Your task to perform on an android device: Open settings Image 0: 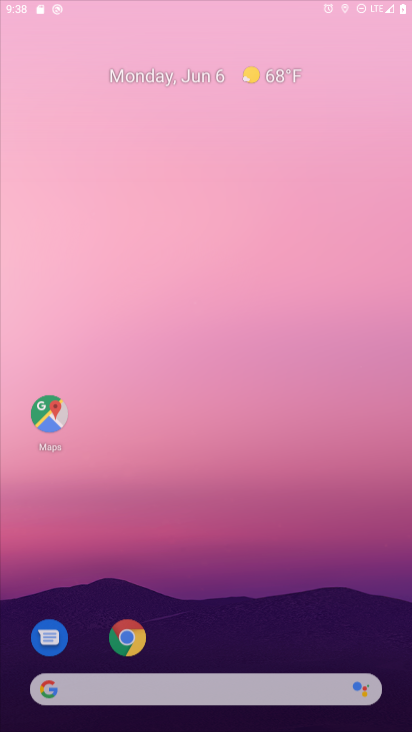
Step 0: press home button
Your task to perform on an android device: Open settings Image 1: 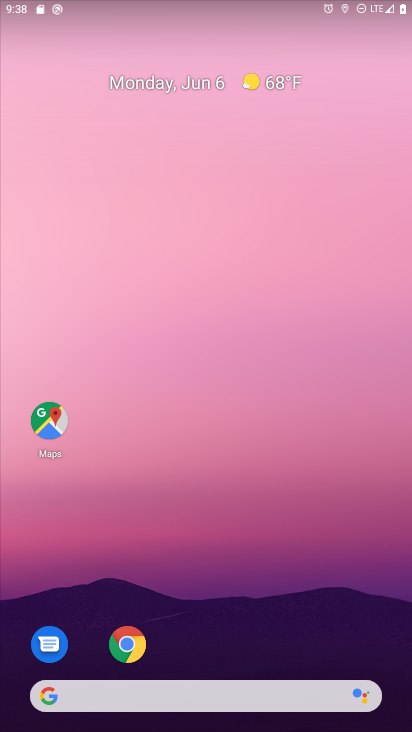
Step 1: drag from (244, 712) to (310, 148)
Your task to perform on an android device: Open settings Image 2: 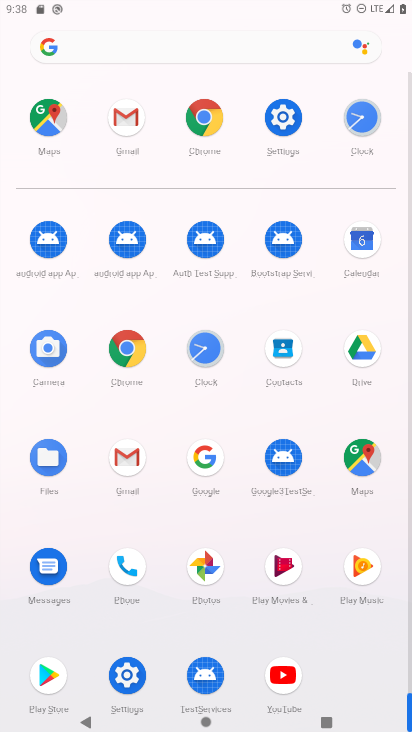
Step 2: click (222, 569)
Your task to perform on an android device: Open settings Image 3: 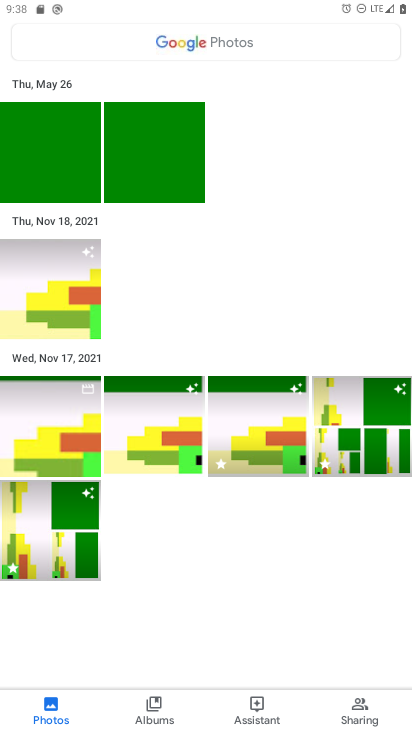
Step 3: press home button
Your task to perform on an android device: Open settings Image 4: 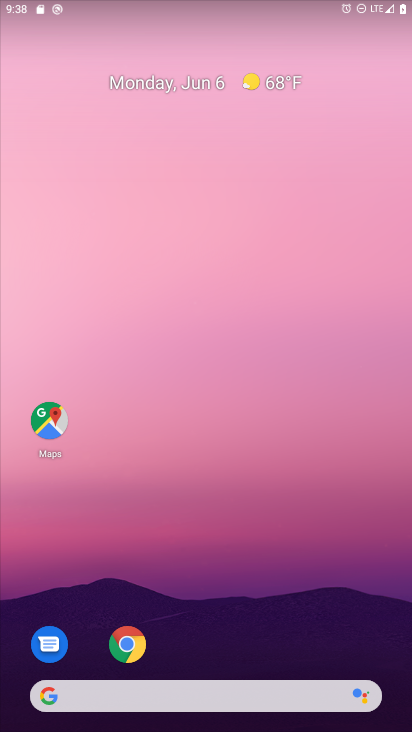
Step 4: drag from (249, 707) to (287, 216)
Your task to perform on an android device: Open settings Image 5: 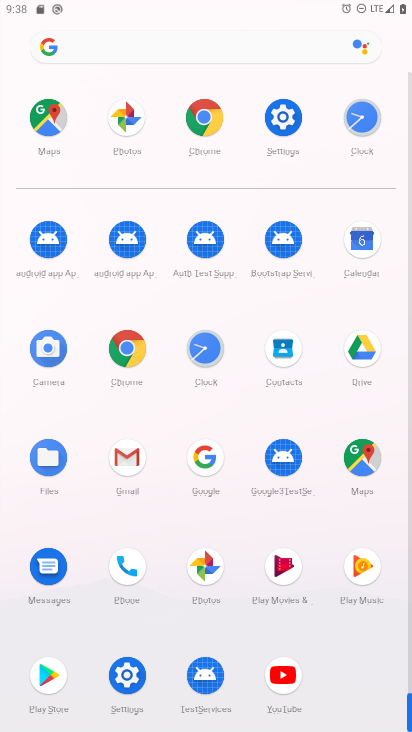
Step 5: click (265, 116)
Your task to perform on an android device: Open settings Image 6: 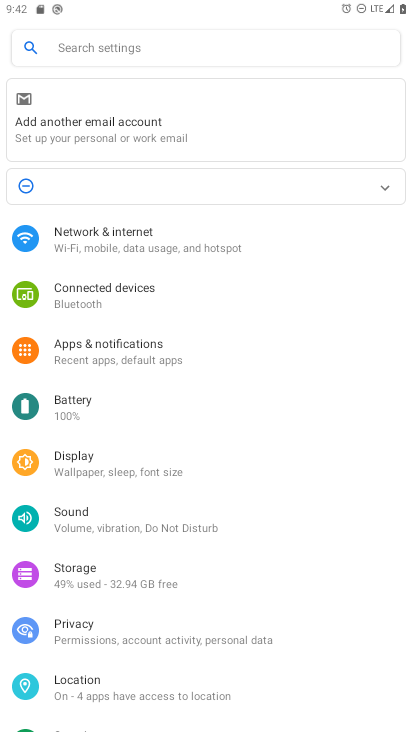
Step 6: task complete